Your task to perform on an android device: turn off location Image 0: 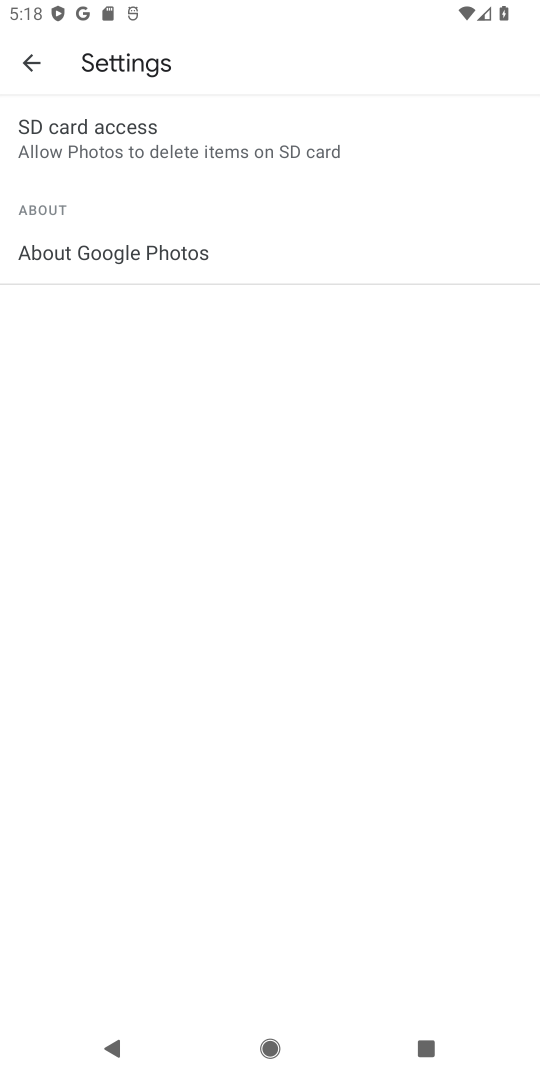
Step 0: press home button
Your task to perform on an android device: turn off location Image 1: 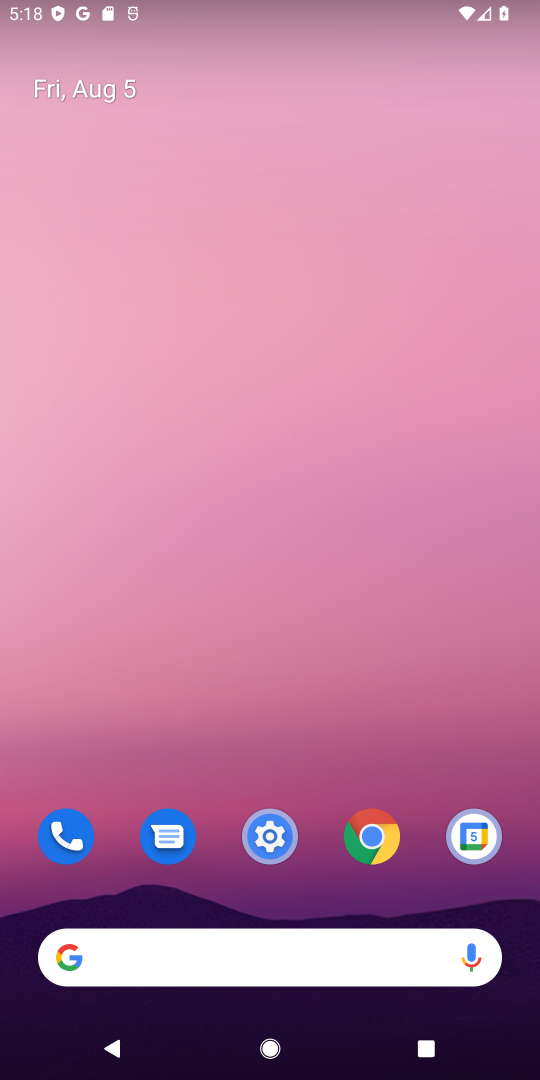
Step 1: drag from (315, 897) to (397, 23)
Your task to perform on an android device: turn off location Image 2: 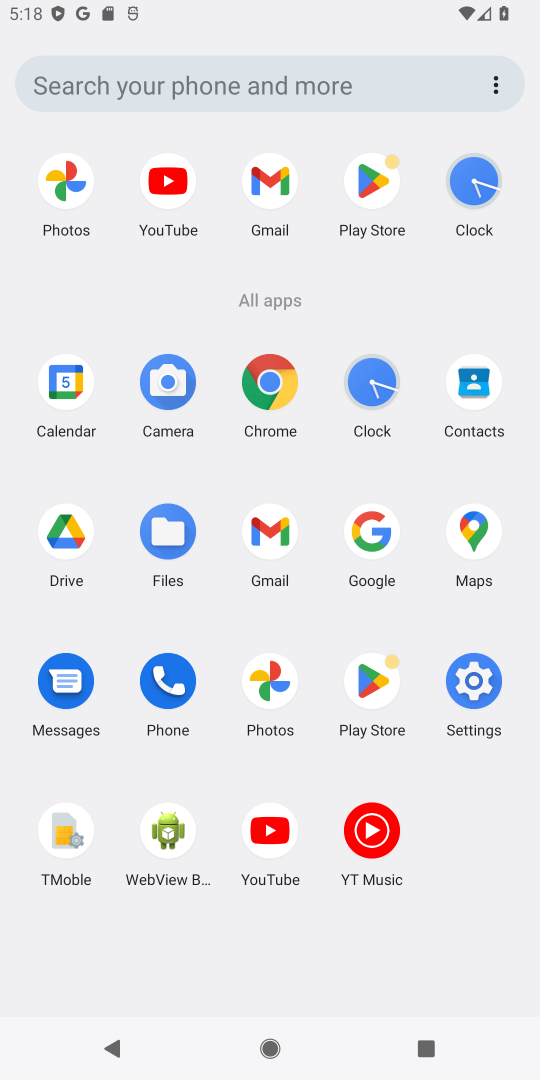
Step 2: click (472, 671)
Your task to perform on an android device: turn off location Image 3: 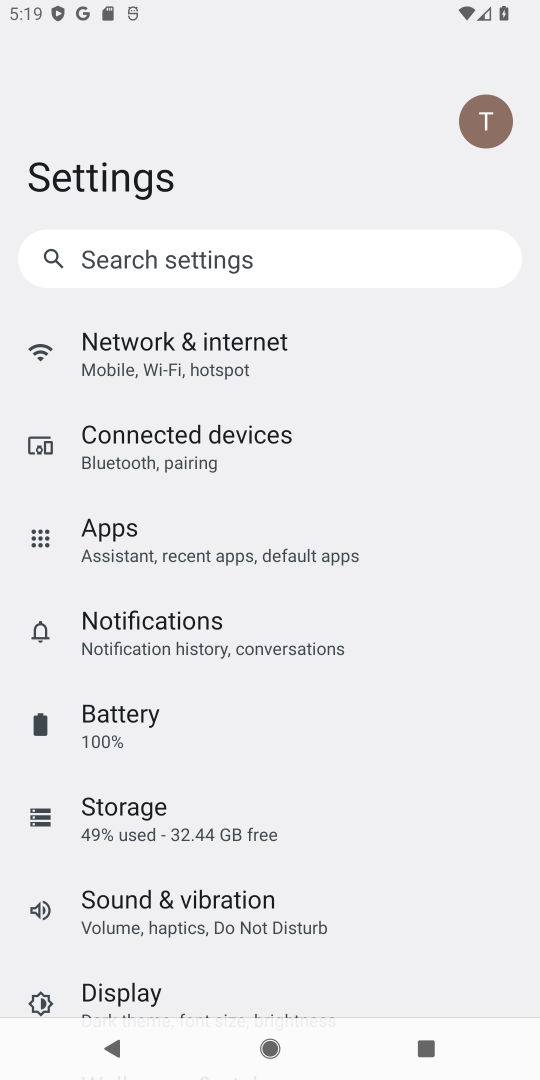
Step 3: drag from (228, 951) to (278, 315)
Your task to perform on an android device: turn off location Image 4: 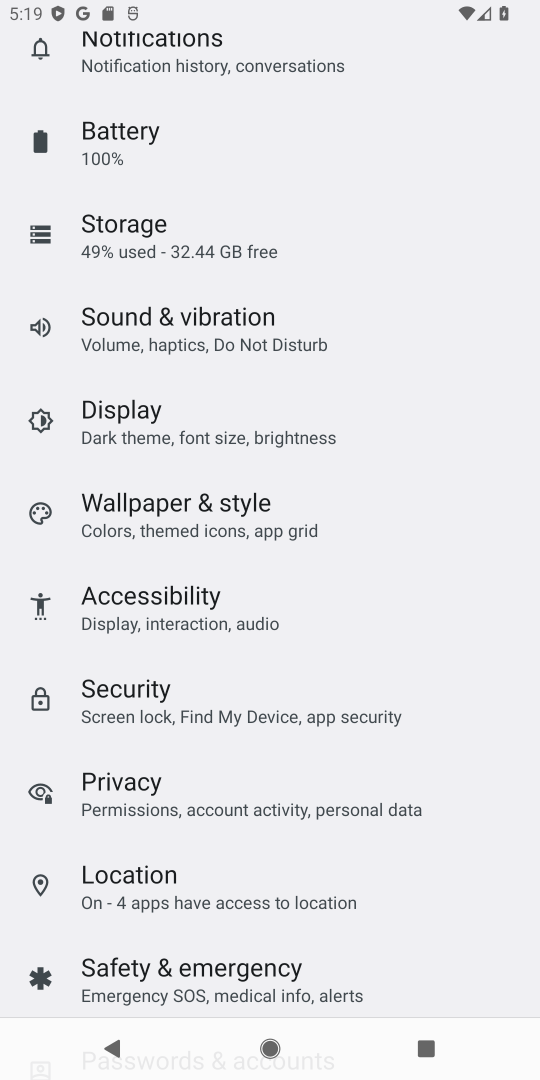
Step 4: click (208, 877)
Your task to perform on an android device: turn off location Image 5: 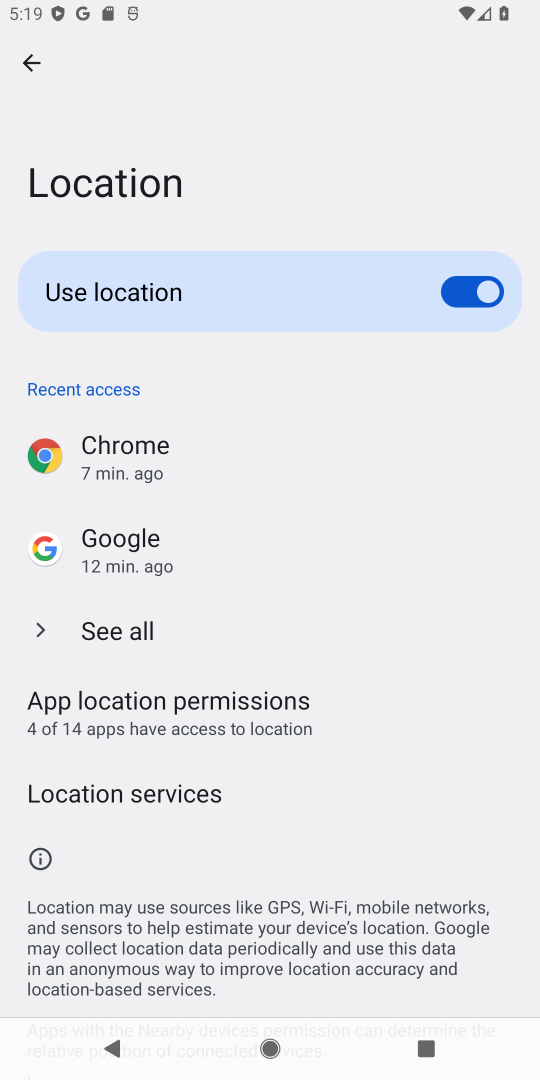
Step 5: click (469, 287)
Your task to perform on an android device: turn off location Image 6: 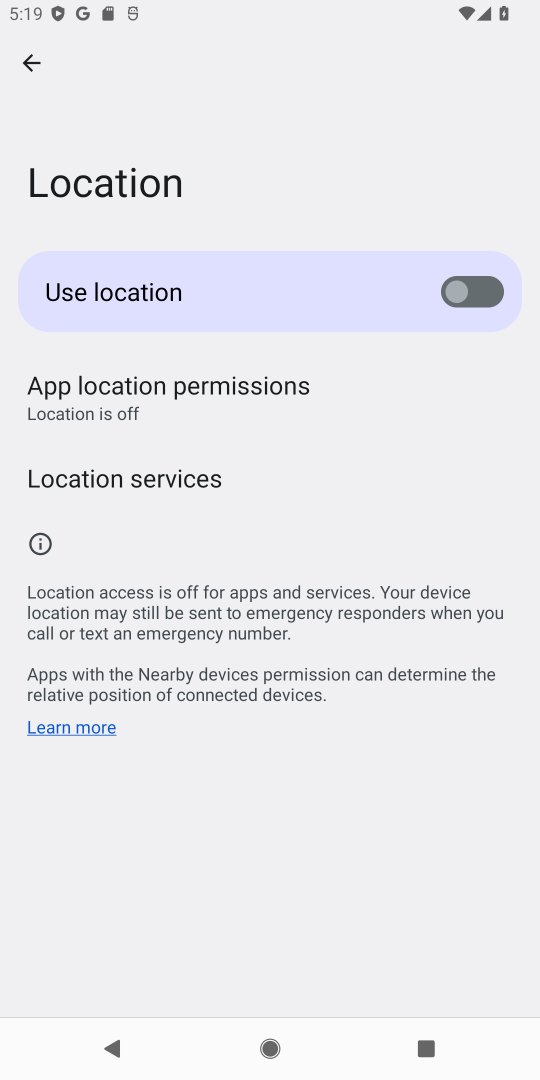
Step 6: task complete